Your task to perform on an android device: turn off translation in the chrome app Image 0: 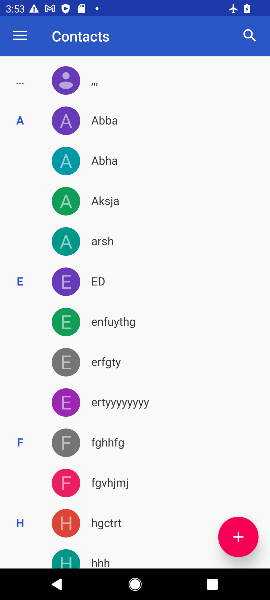
Step 0: press home button
Your task to perform on an android device: turn off translation in the chrome app Image 1: 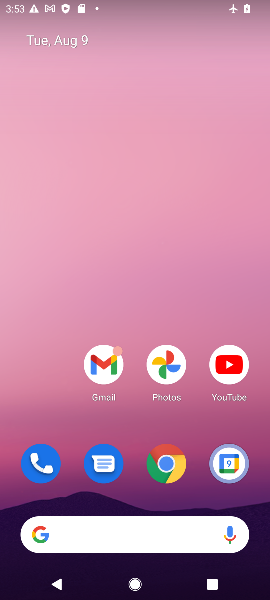
Step 1: click (162, 468)
Your task to perform on an android device: turn off translation in the chrome app Image 2: 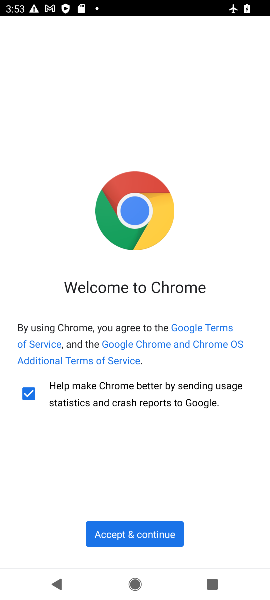
Step 2: click (167, 523)
Your task to perform on an android device: turn off translation in the chrome app Image 3: 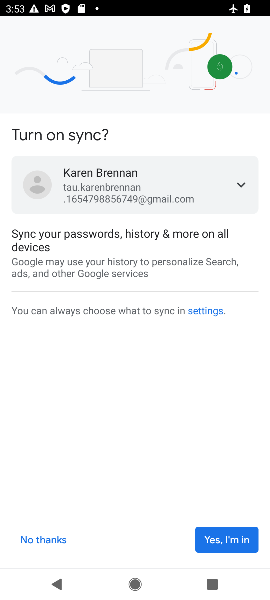
Step 3: click (223, 542)
Your task to perform on an android device: turn off translation in the chrome app Image 4: 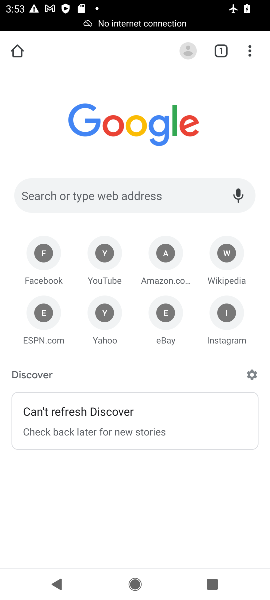
Step 4: click (249, 47)
Your task to perform on an android device: turn off translation in the chrome app Image 5: 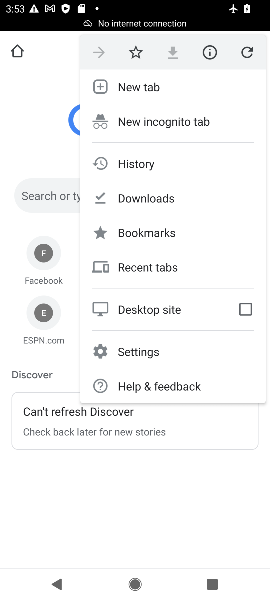
Step 5: click (147, 356)
Your task to perform on an android device: turn off translation in the chrome app Image 6: 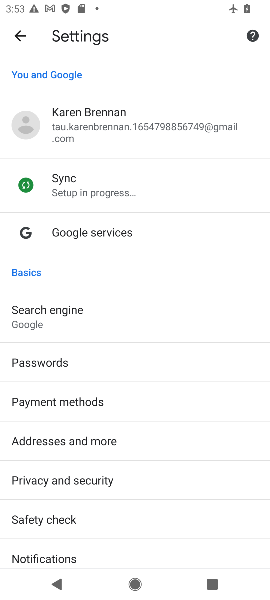
Step 6: drag from (41, 535) to (52, 320)
Your task to perform on an android device: turn off translation in the chrome app Image 7: 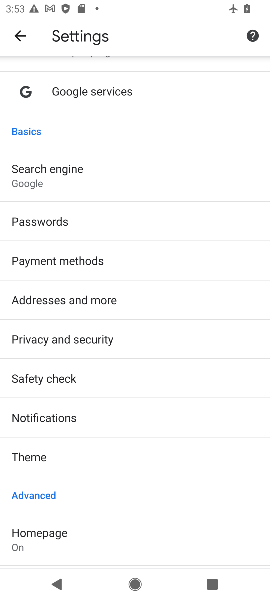
Step 7: drag from (91, 517) to (95, 242)
Your task to perform on an android device: turn off translation in the chrome app Image 8: 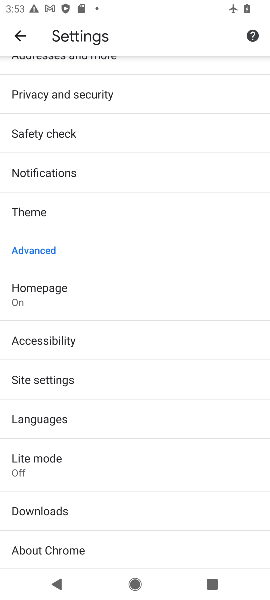
Step 8: click (19, 417)
Your task to perform on an android device: turn off translation in the chrome app Image 9: 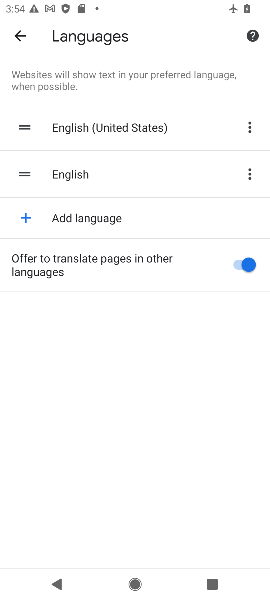
Step 9: click (239, 265)
Your task to perform on an android device: turn off translation in the chrome app Image 10: 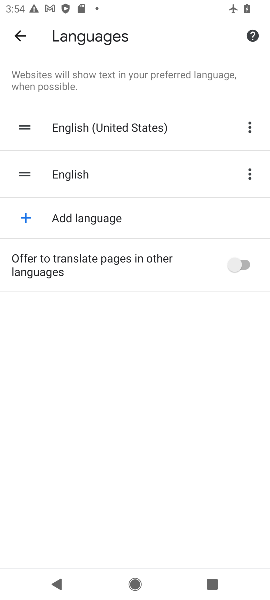
Step 10: task complete